Your task to perform on an android device: Go to settings Image 0: 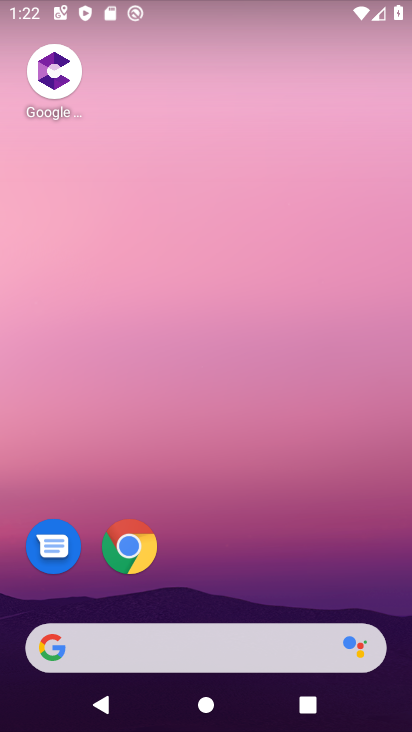
Step 0: drag from (311, 542) to (254, 154)
Your task to perform on an android device: Go to settings Image 1: 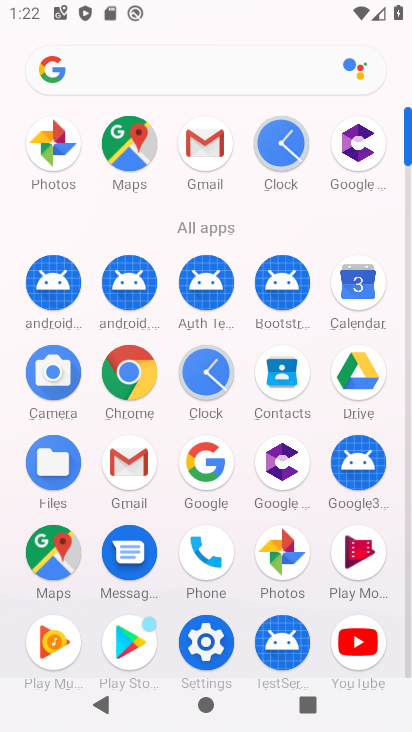
Step 1: drag from (381, 549) to (297, 167)
Your task to perform on an android device: Go to settings Image 2: 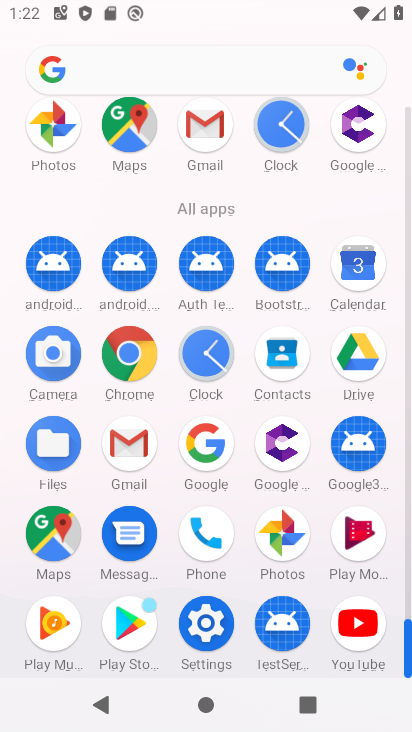
Step 2: click (203, 614)
Your task to perform on an android device: Go to settings Image 3: 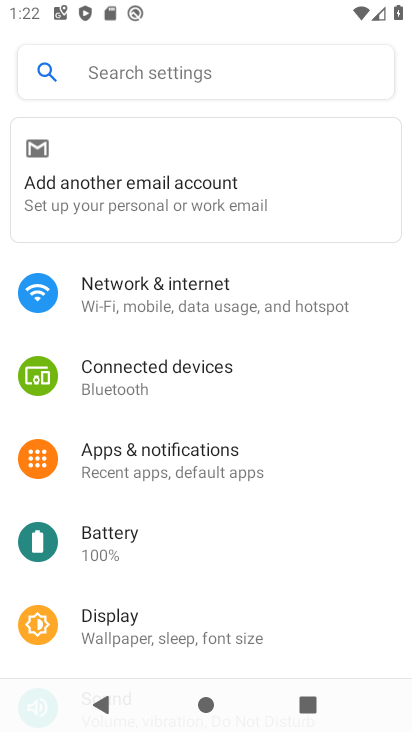
Step 3: task complete